Your task to perform on an android device: turn off data saver in the chrome app Image 0: 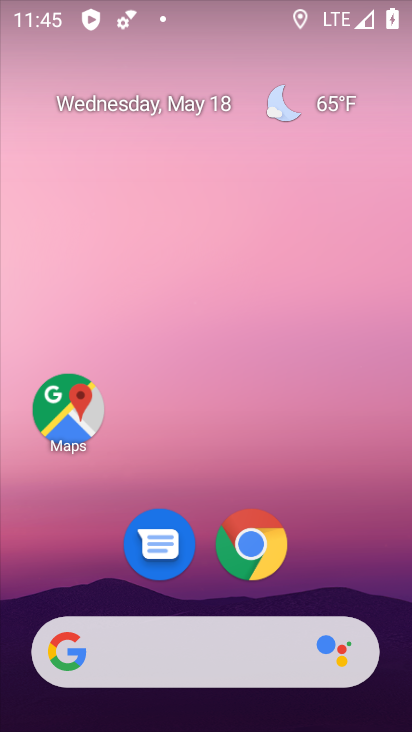
Step 0: drag from (368, 583) to (356, 141)
Your task to perform on an android device: turn off data saver in the chrome app Image 1: 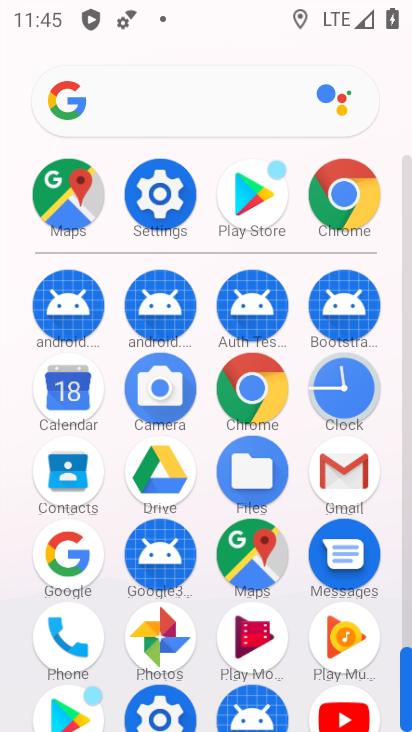
Step 1: click (249, 391)
Your task to perform on an android device: turn off data saver in the chrome app Image 2: 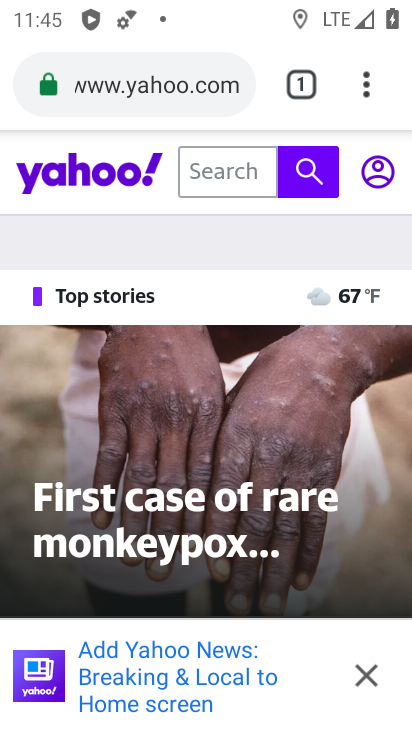
Step 2: click (365, 92)
Your task to perform on an android device: turn off data saver in the chrome app Image 3: 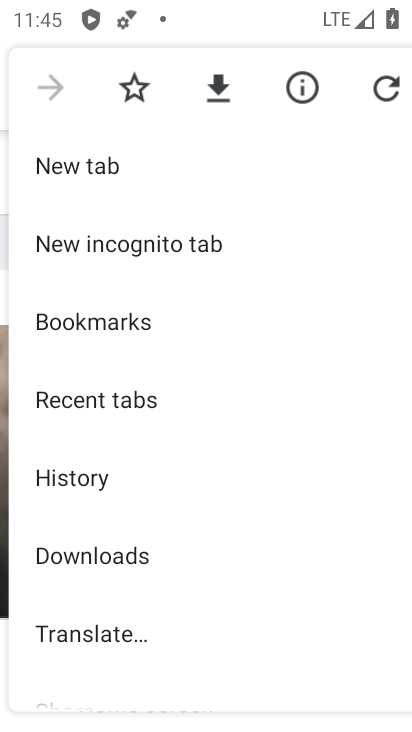
Step 3: drag from (321, 542) to (296, 390)
Your task to perform on an android device: turn off data saver in the chrome app Image 4: 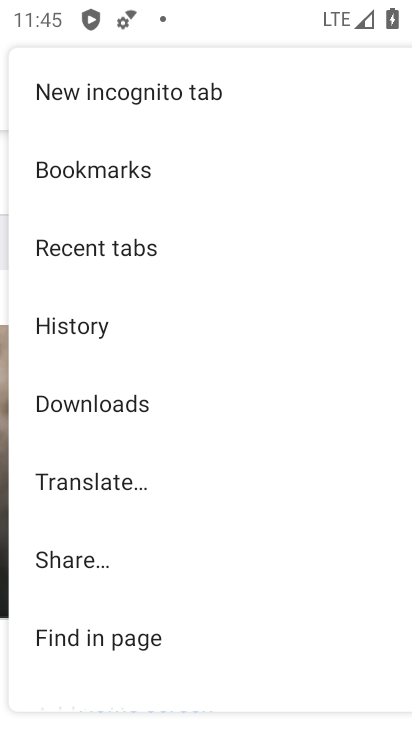
Step 4: drag from (276, 569) to (275, 383)
Your task to perform on an android device: turn off data saver in the chrome app Image 5: 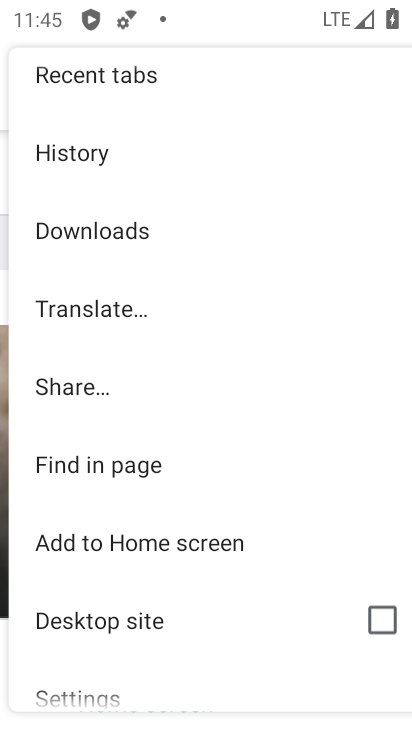
Step 5: drag from (243, 600) to (245, 400)
Your task to perform on an android device: turn off data saver in the chrome app Image 6: 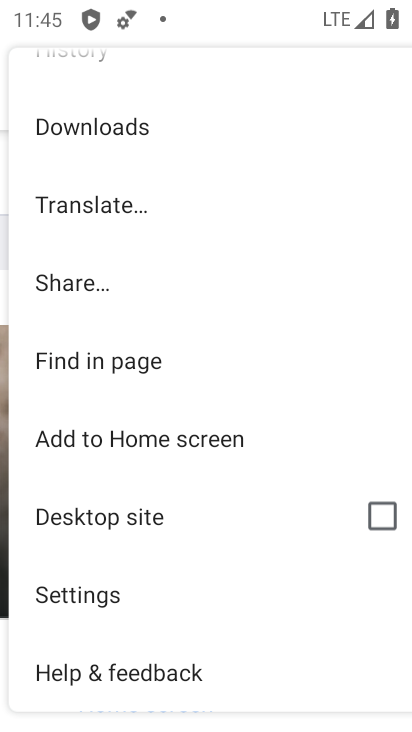
Step 6: drag from (234, 238) to (229, 421)
Your task to perform on an android device: turn off data saver in the chrome app Image 7: 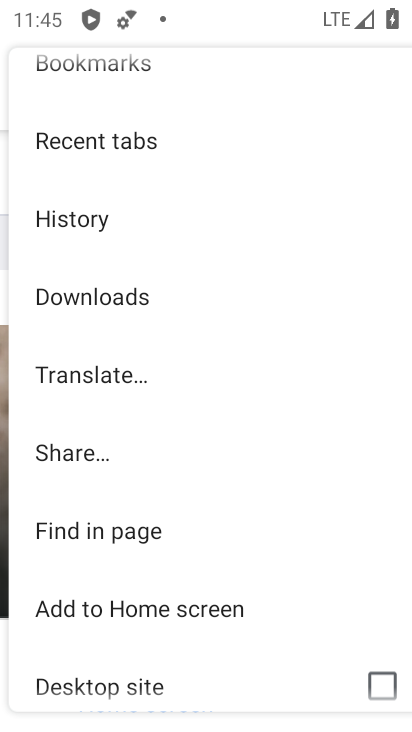
Step 7: drag from (255, 497) to (269, 240)
Your task to perform on an android device: turn off data saver in the chrome app Image 8: 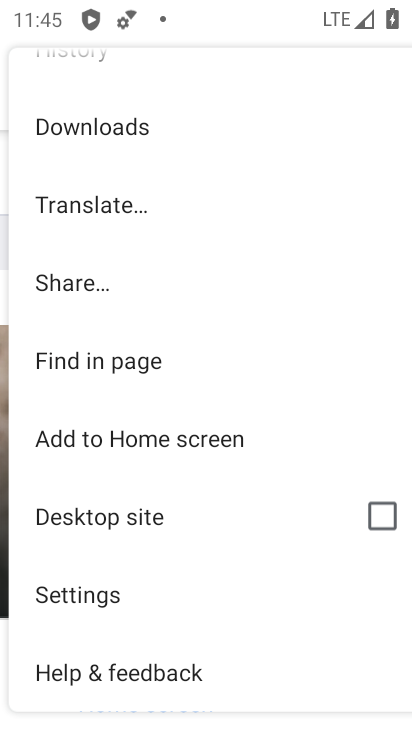
Step 8: click (124, 591)
Your task to perform on an android device: turn off data saver in the chrome app Image 9: 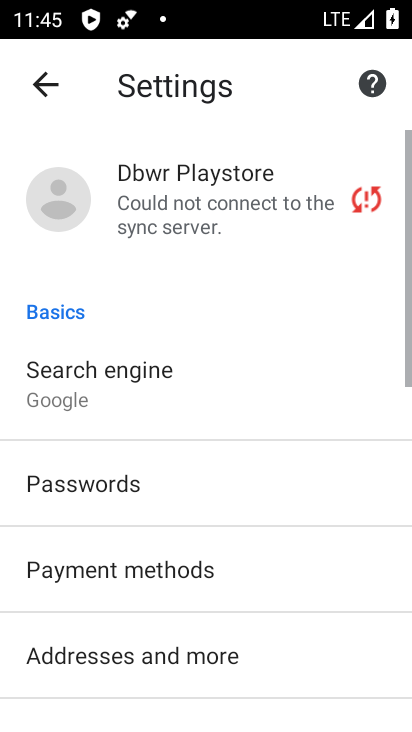
Step 9: drag from (262, 576) to (274, 415)
Your task to perform on an android device: turn off data saver in the chrome app Image 10: 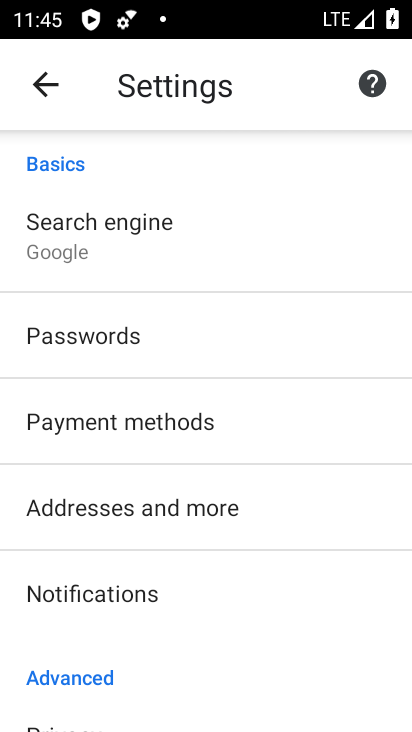
Step 10: drag from (276, 610) to (282, 487)
Your task to perform on an android device: turn off data saver in the chrome app Image 11: 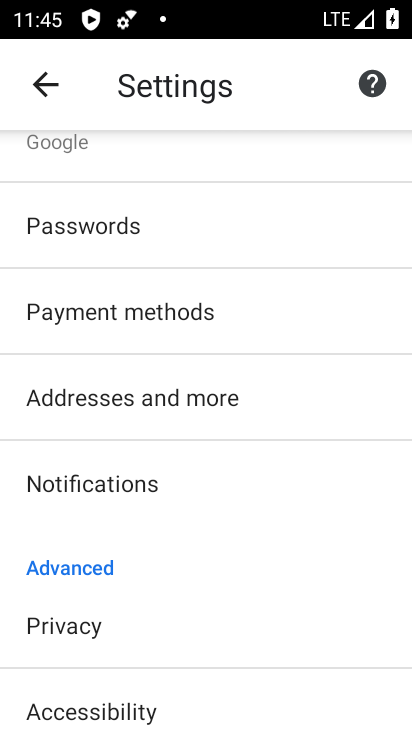
Step 11: drag from (259, 613) to (273, 402)
Your task to perform on an android device: turn off data saver in the chrome app Image 12: 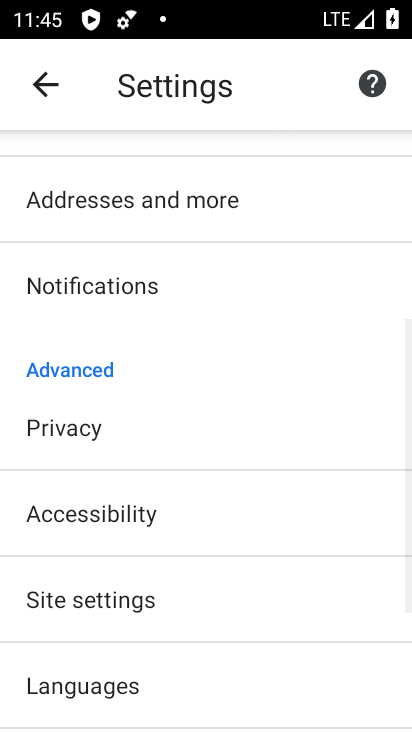
Step 12: drag from (258, 655) to (269, 442)
Your task to perform on an android device: turn off data saver in the chrome app Image 13: 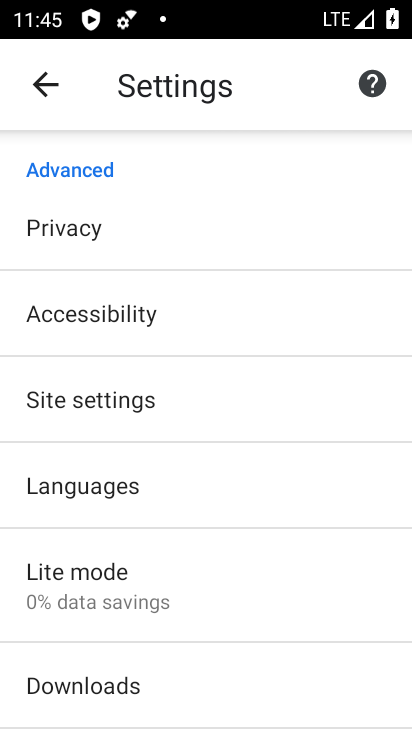
Step 13: click (201, 606)
Your task to perform on an android device: turn off data saver in the chrome app Image 14: 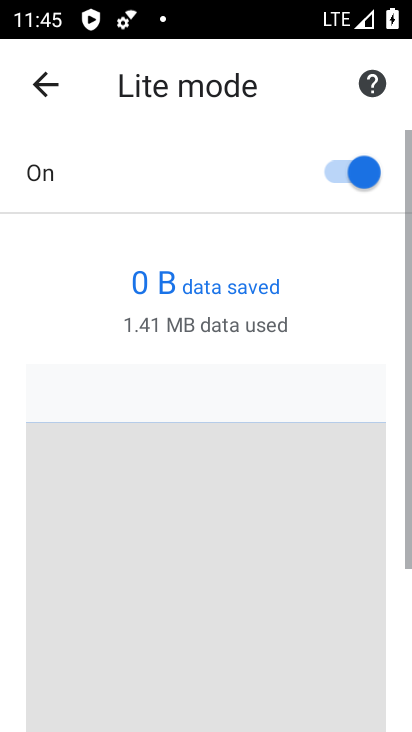
Step 14: click (335, 171)
Your task to perform on an android device: turn off data saver in the chrome app Image 15: 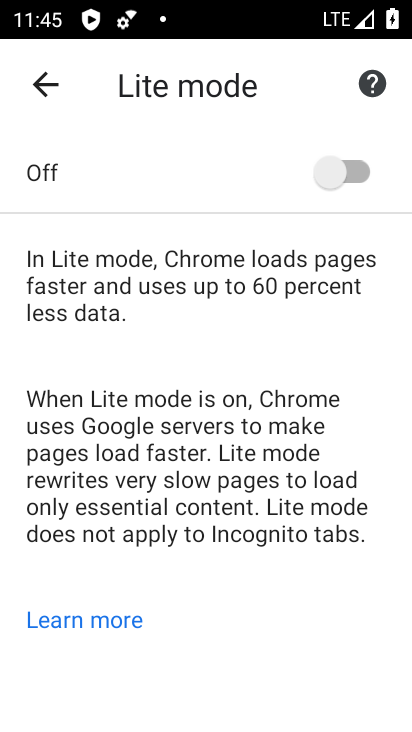
Step 15: task complete